Your task to perform on an android device: Open Yahoo.com Image 0: 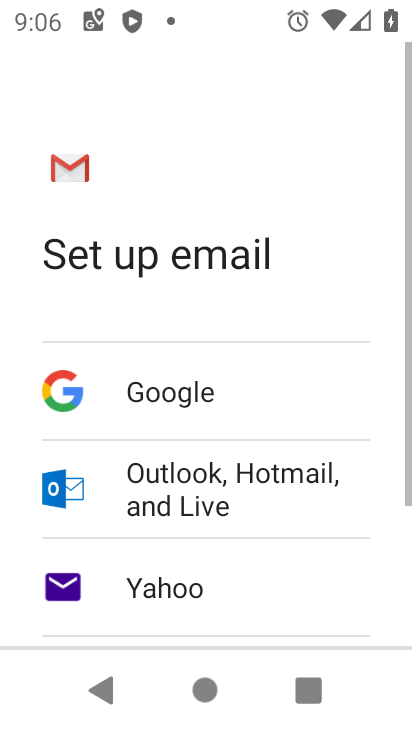
Step 0: press home button
Your task to perform on an android device: Open Yahoo.com Image 1: 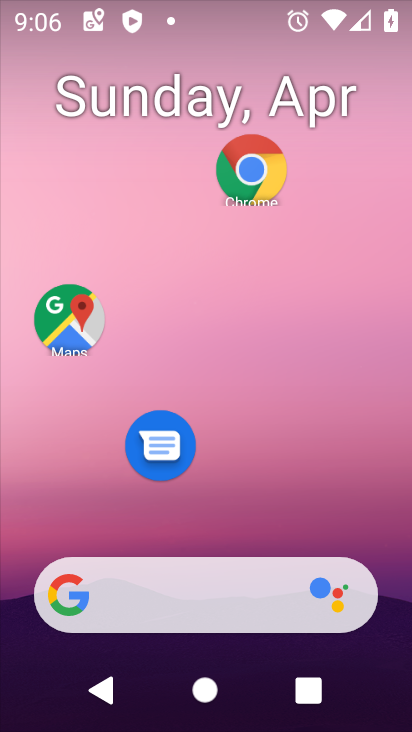
Step 1: click (251, 167)
Your task to perform on an android device: Open Yahoo.com Image 2: 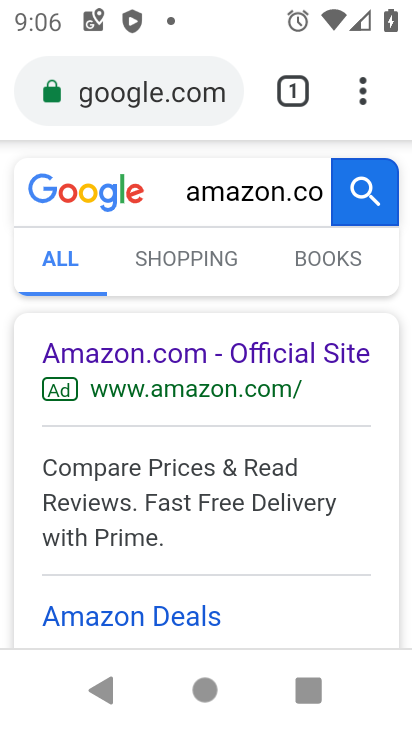
Step 2: task complete